Your task to perform on an android device: Open Google Image 0: 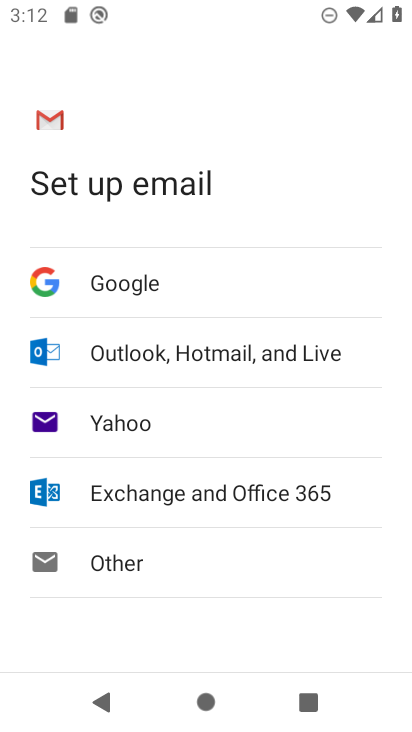
Step 0: press home button
Your task to perform on an android device: Open Google Image 1: 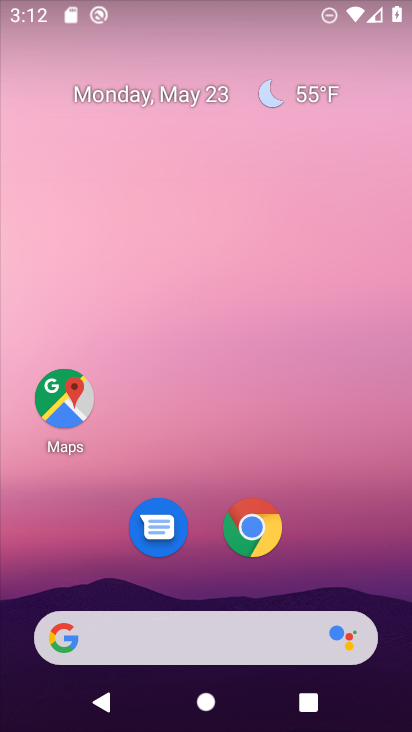
Step 1: drag from (209, 587) to (241, 37)
Your task to perform on an android device: Open Google Image 2: 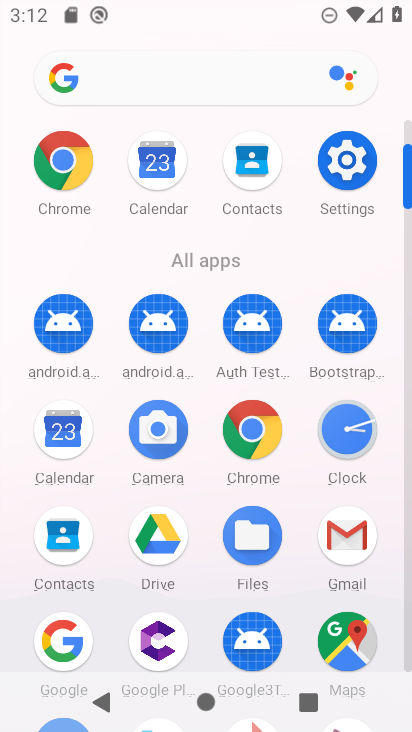
Step 2: click (58, 638)
Your task to perform on an android device: Open Google Image 3: 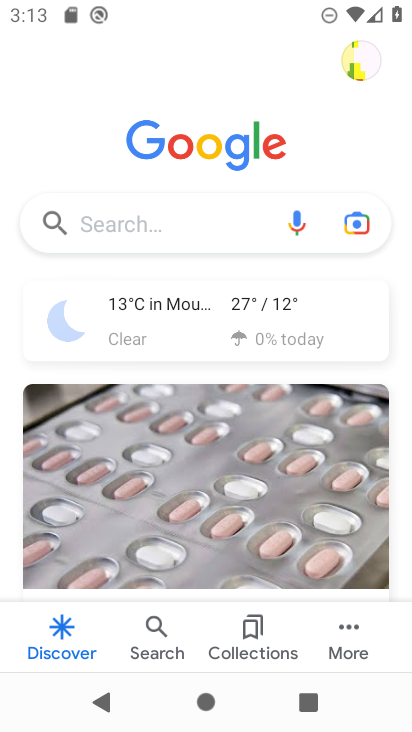
Step 3: task complete